Your task to perform on an android device: toggle translation in the chrome app Image 0: 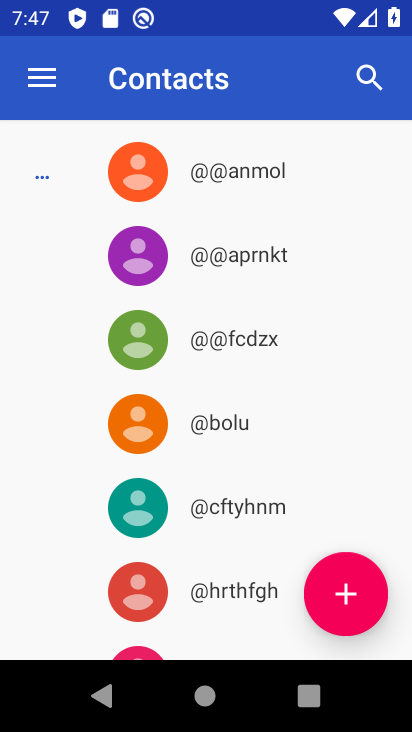
Step 0: press home button
Your task to perform on an android device: toggle translation in the chrome app Image 1: 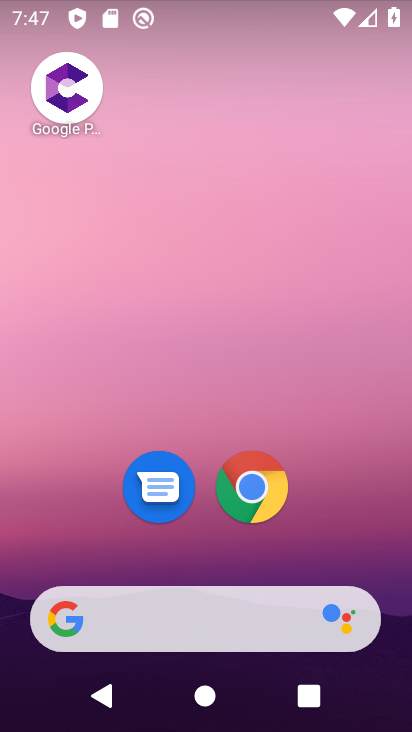
Step 1: click (261, 497)
Your task to perform on an android device: toggle translation in the chrome app Image 2: 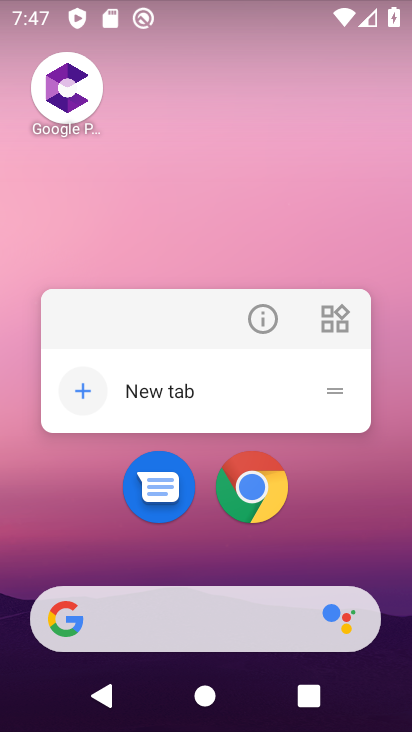
Step 2: click (263, 487)
Your task to perform on an android device: toggle translation in the chrome app Image 3: 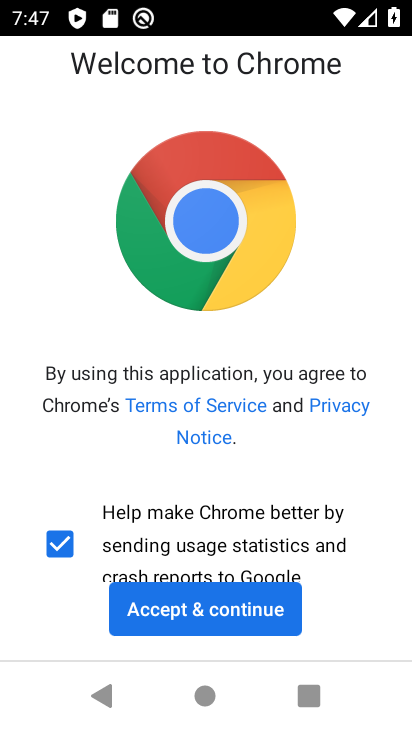
Step 3: click (252, 622)
Your task to perform on an android device: toggle translation in the chrome app Image 4: 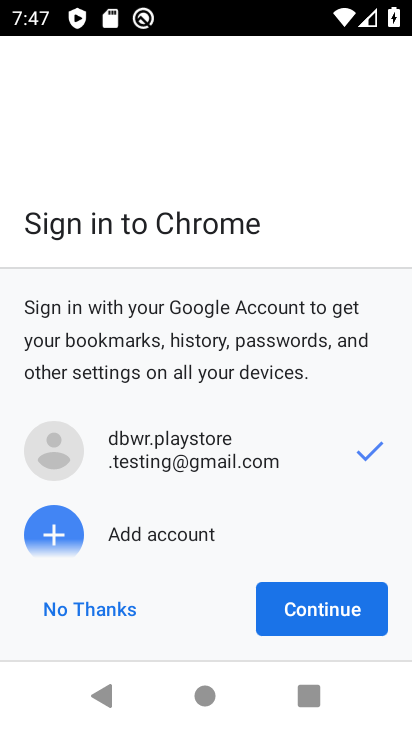
Step 4: click (300, 599)
Your task to perform on an android device: toggle translation in the chrome app Image 5: 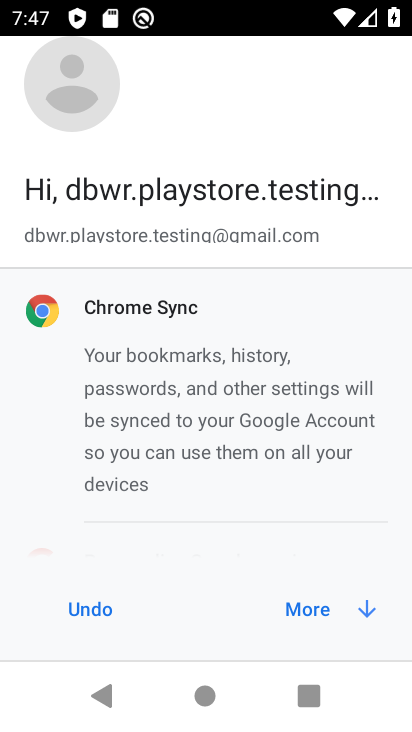
Step 5: click (294, 607)
Your task to perform on an android device: toggle translation in the chrome app Image 6: 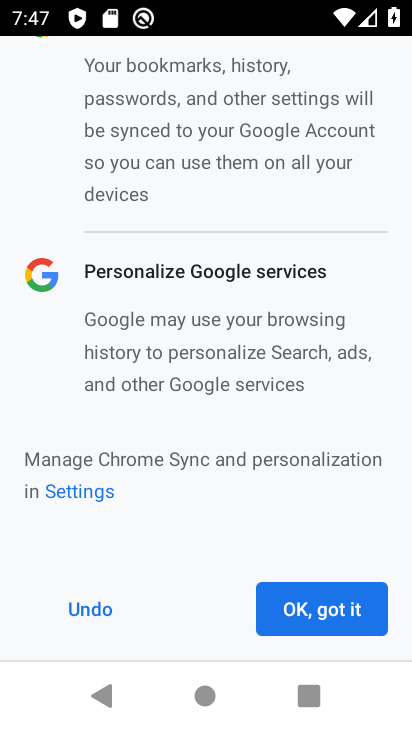
Step 6: click (294, 608)
Your task to perform on an android device: toggle translation in the chrome app Image 7: 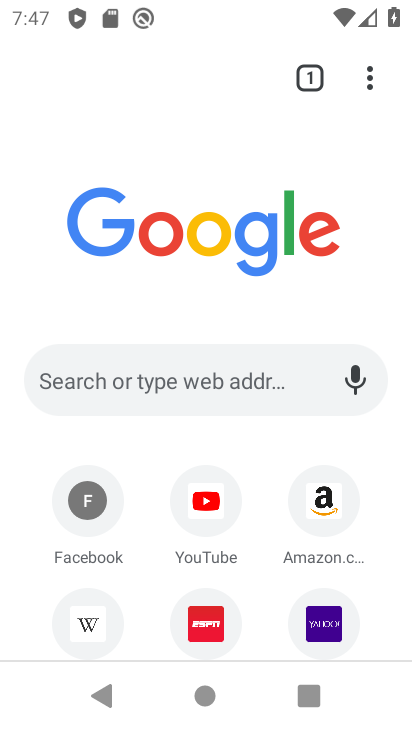
Step 7: click (369, 85)
Your task to perform on an android device: toggle translation in the chrome app Image 8: 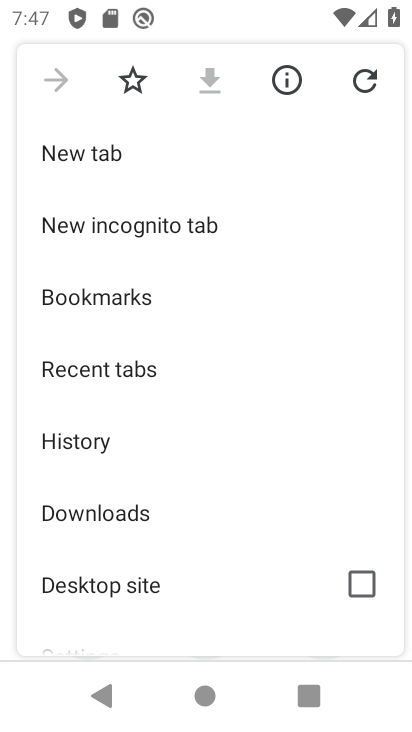
Step 8: drag from (199, 590) to (227, 282)
Your task to perform on an android device: toggle translation in the chrome app Image 9: 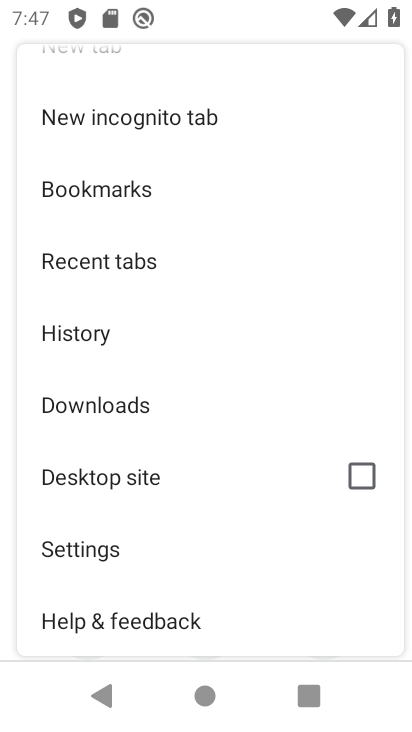
Step 9: click (94, 550)
Your task to perform on an android device: toggle translation in the chrome app Image 10: 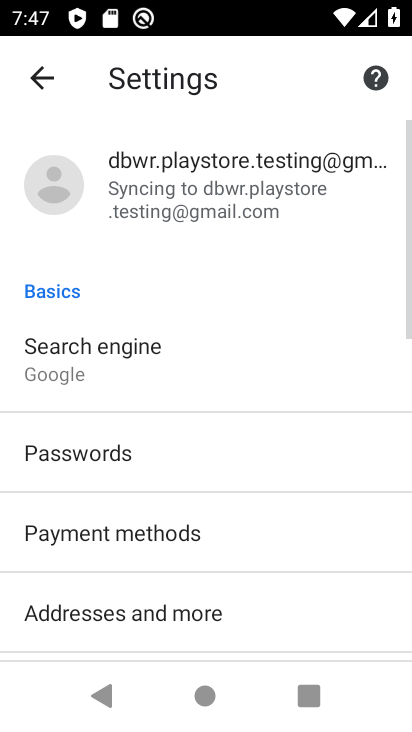
Step 10: drag from (289, 595) to (345, 238)
Your task to perform on an android device: toggle translation in the chrome app Image 11: 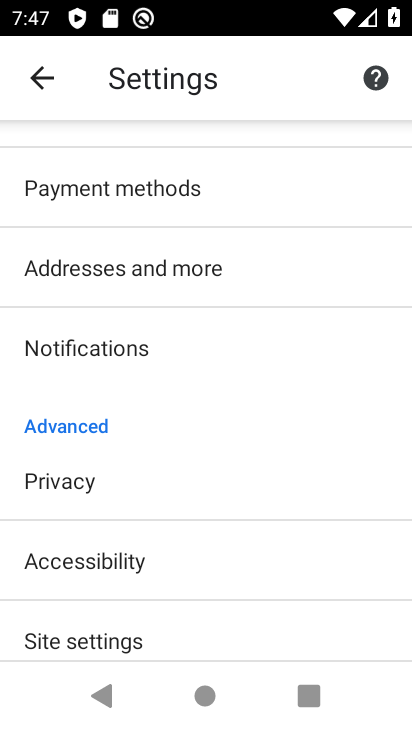
Step 11: drag from (256, 586) to (329, 322)
Your task to perform on an android device: toggle translation in the chrome app Image 12: 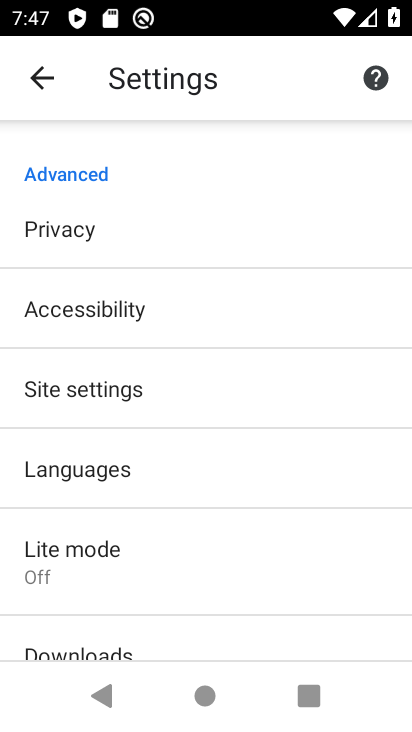
Step 12: drag from (159, 610) to (247, 312)
Your task to perform on an android device: toggle translation in the chrome app Image 13: 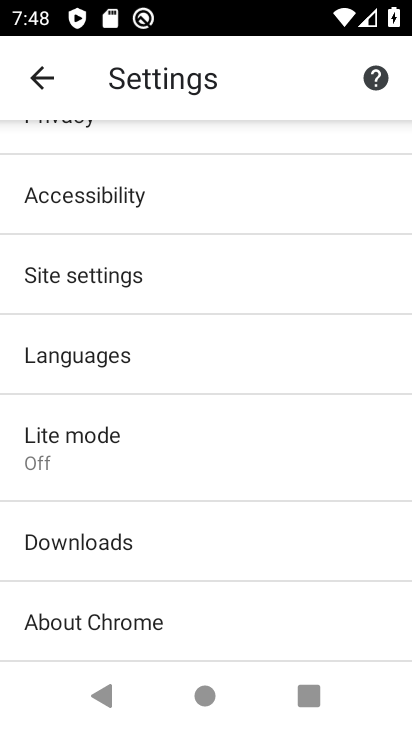
Step 13: drag from (237, 204) to (212, 459)
Your task to perform on an android device: toggle translation in the chrome app Image 14: 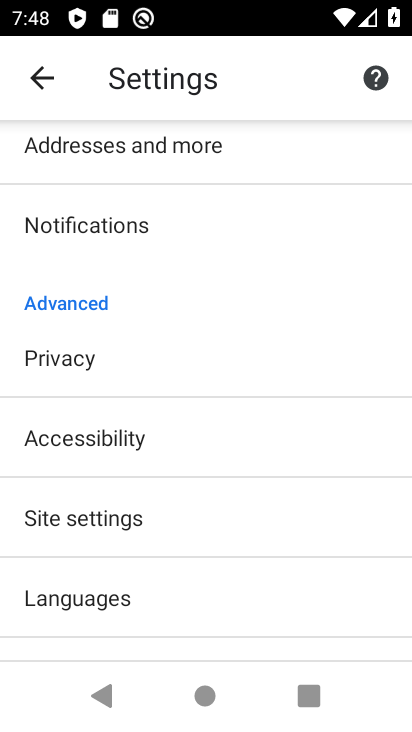
Step 14: click (109, 595)
Your task to perform on an android device: toggle translation in the chrome app Image 15: 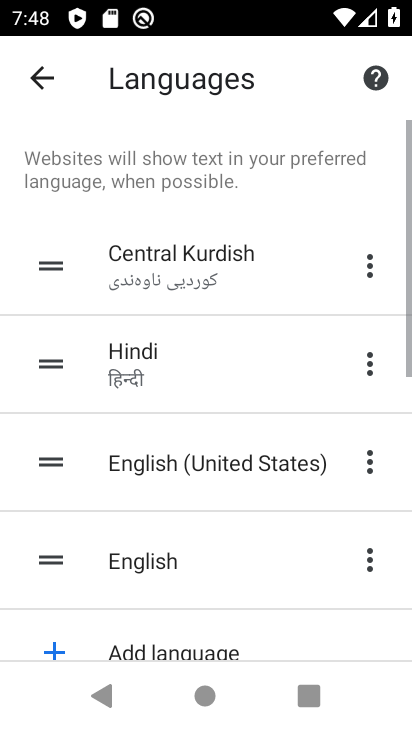
Step 15: drag from (251, 589) to (277, 270)
Your task to perform on an android device: toggle translation in the chrome app Image 16: 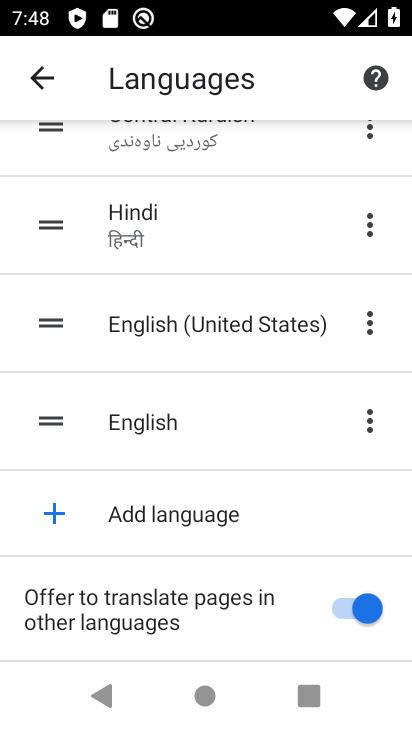
Step 16: click (369, 614)
Your task to perform on an android device: toggle translation in the chrome app Image 17: 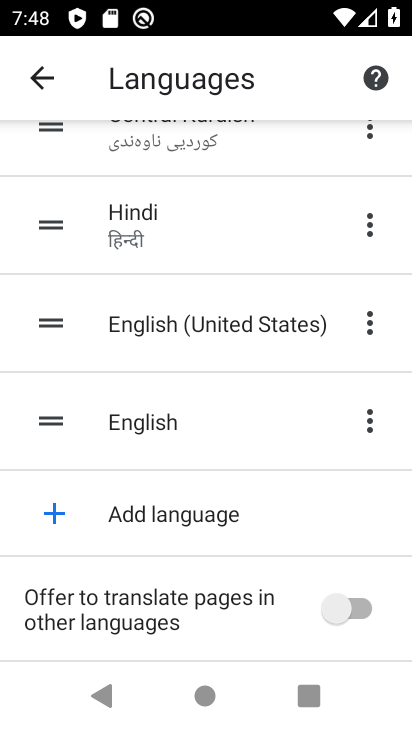
Step 17: task complete